Your task to perform on an android device: Open Maps and search for coffee Image 0: 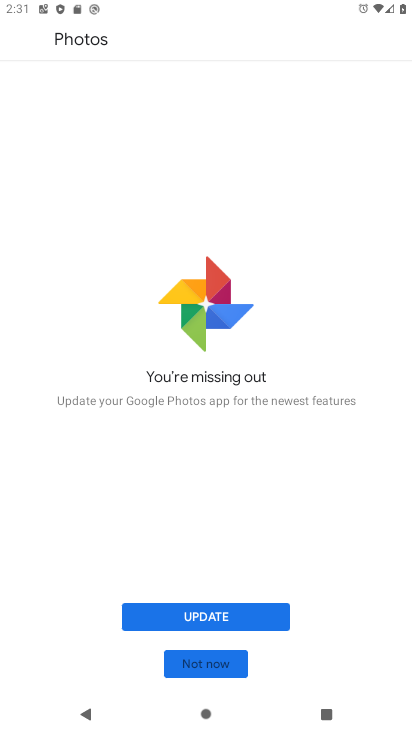
Step 0: press home button
Your task to perform on an android device: Open Maps and search for coffee Image 1: 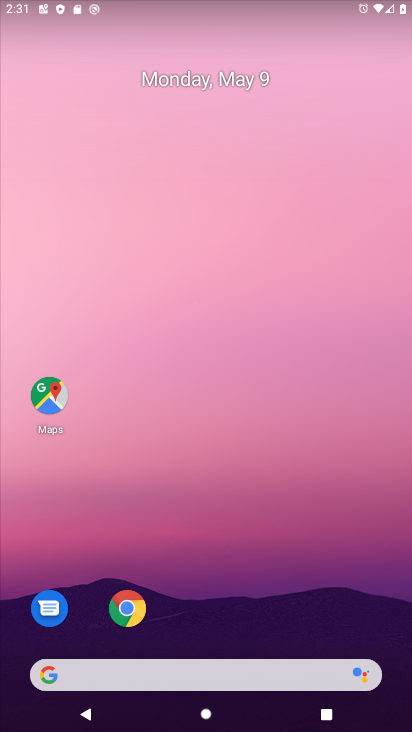
Step 1: click (43, 388)
Your task to perform on an android device: Open Maps and search for coffee Image 2: 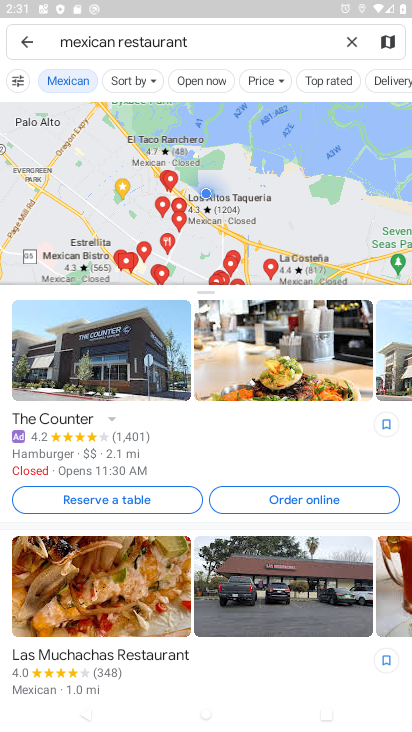
Step 2: click (348, 41)
Your task to perform on an android device: Open Maps and search for coffee Image 3: 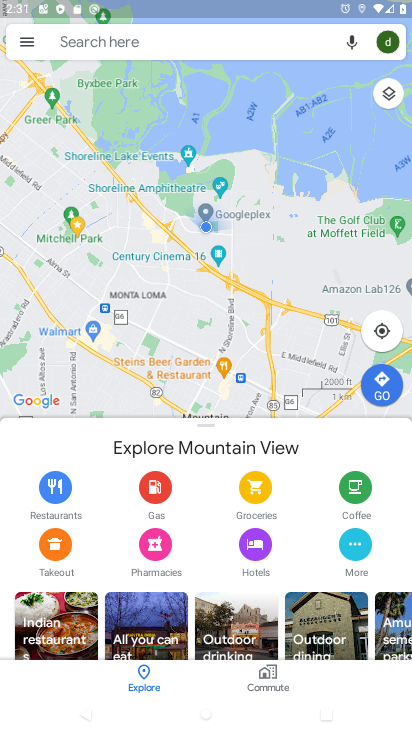
Step 3: click (244, 40)
Your task to perform on an android device: Open Maps and search for coffee Image 4: 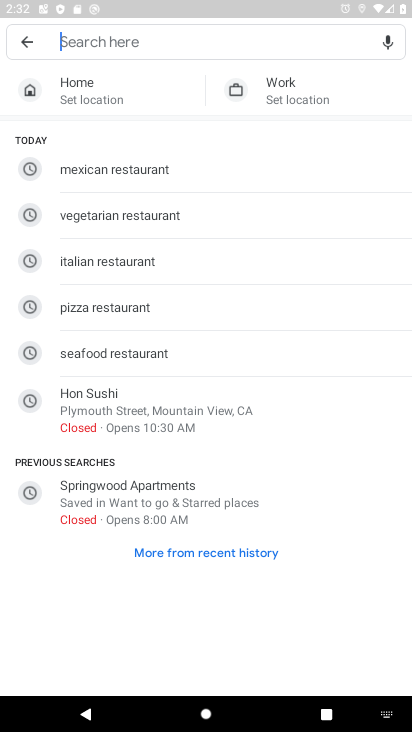
Step 4: type "coffee"
Your task to perform on an android device: Open Maps and search for coffee Image 5: 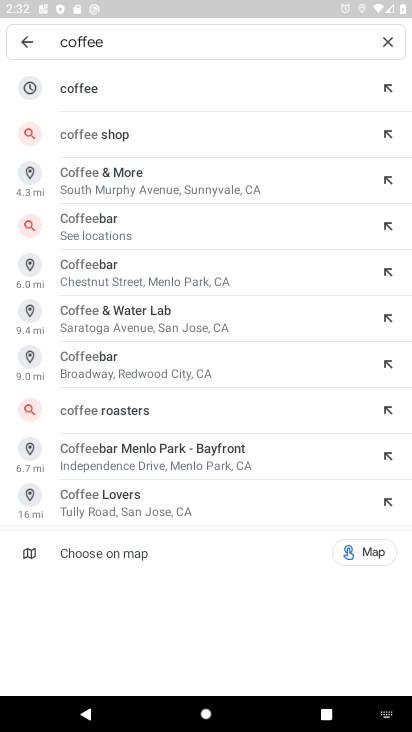
Step 5: click (125, 124)
Your task to perform on an android device: Open Maps and search for coffee Image 6: 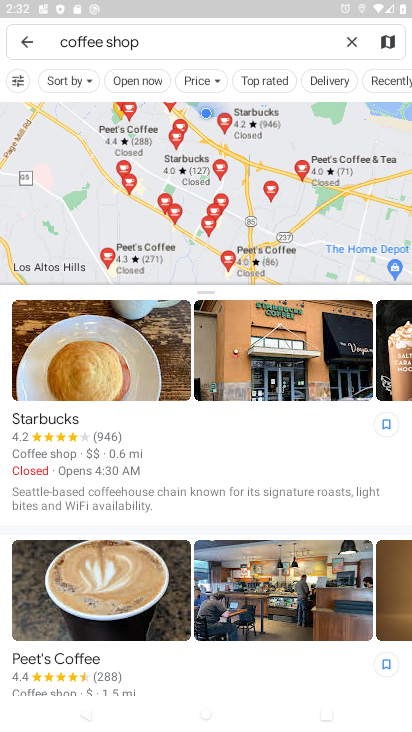
Step 6: task complete